Your task to perform on an android device: toggle pop-ups in chrome Image 0: 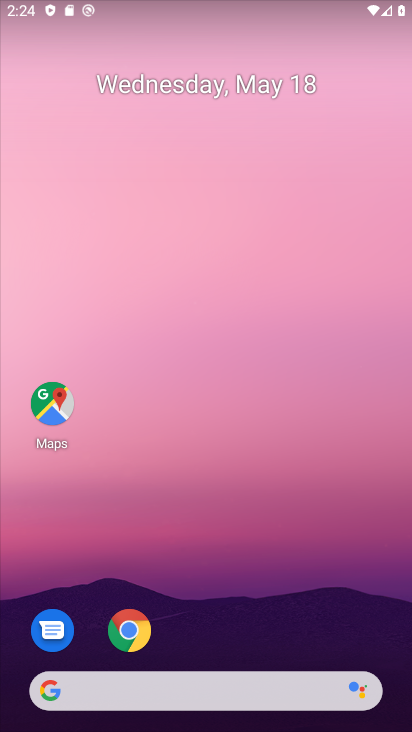
Step 0: press home button
Your task to perform on an android device: toggle pop-ups in chrome Image 1: 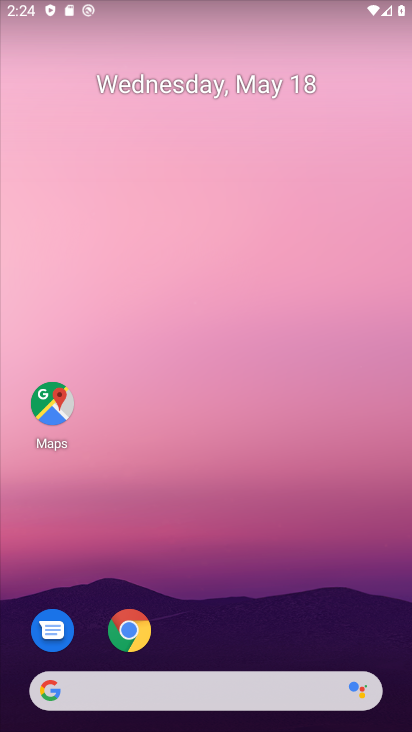
Step 1: click (125, 622)
Your task to perform on an android device: toggle pop-ups in chrome Image 2: 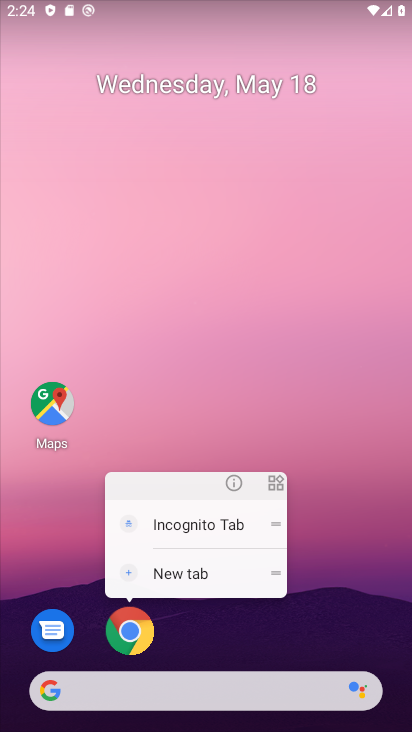
Step 2: click (125, 622)
Your task to perform on an android device: toggle pop-ups in chrome Image 3: 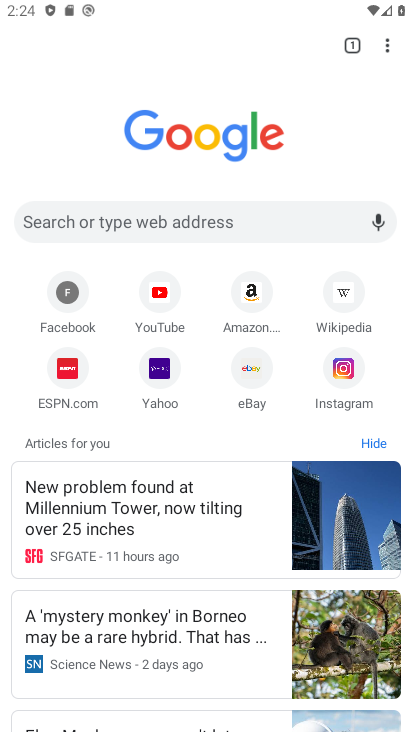
Step 3: click (390, 44)
Your task to perform on an android device: toggle pop-ups in chrome Image 4: 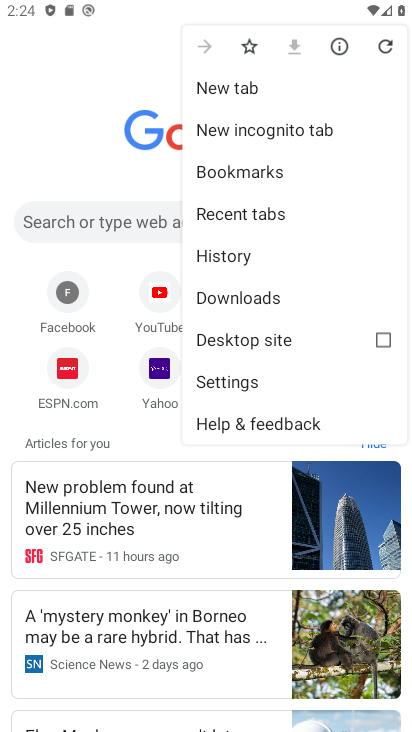
Step 4: click (254, 379)
Your task to perform on an android device: toggle pop-ups in chrome Image 5: 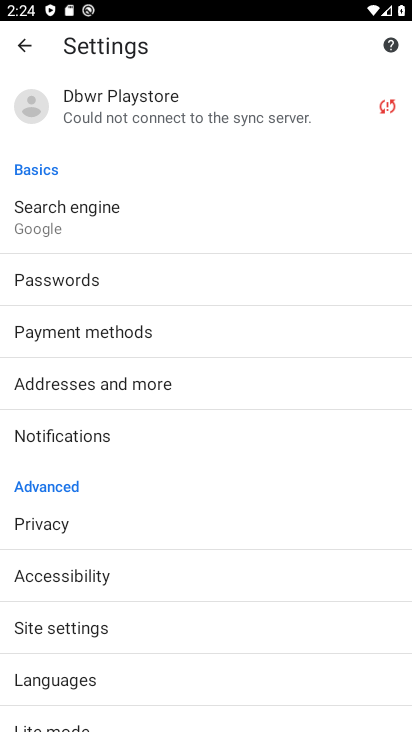
Step 5: click (120, 622)
Your task to perform on an android device: toggle pop-ups in chrome Image 6: 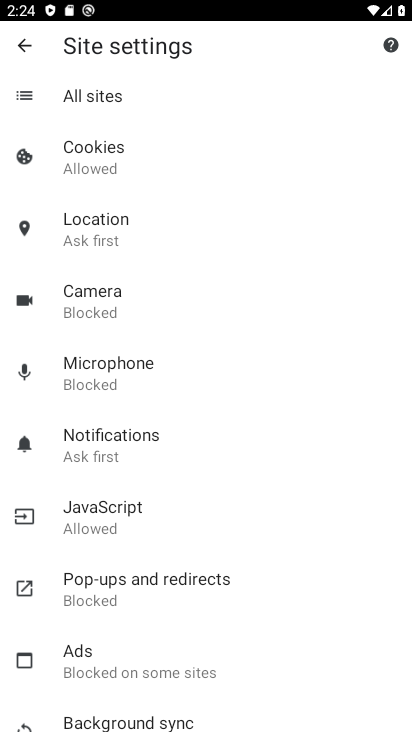
Step 6: click (120, 597)
Your task to perform on an android device: toggle pop-ups in chrome Image 7: 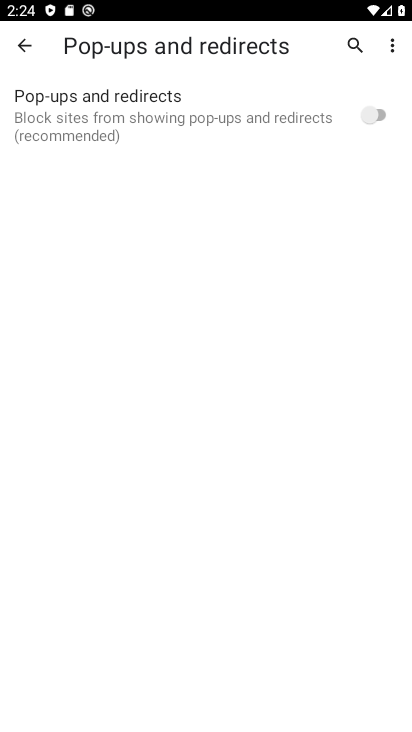
Step 7: click (370, 105)
Your task to perform on an android device: toggle pop-ups in chrome Image 8: 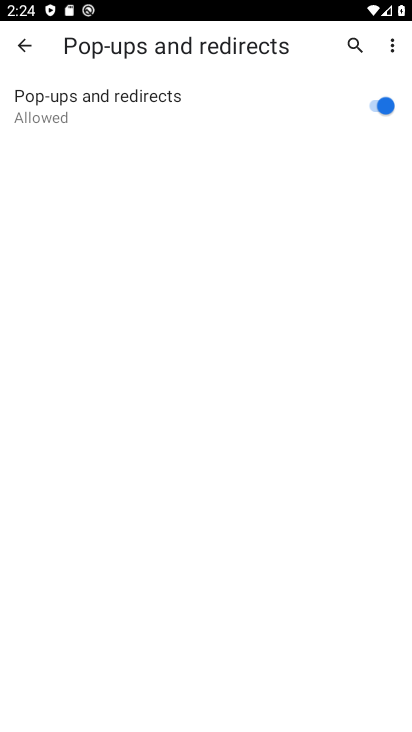
Step 8: task complete